Your task to perform on an android device: open the mobile data screen to see how much data has been used Image 0: 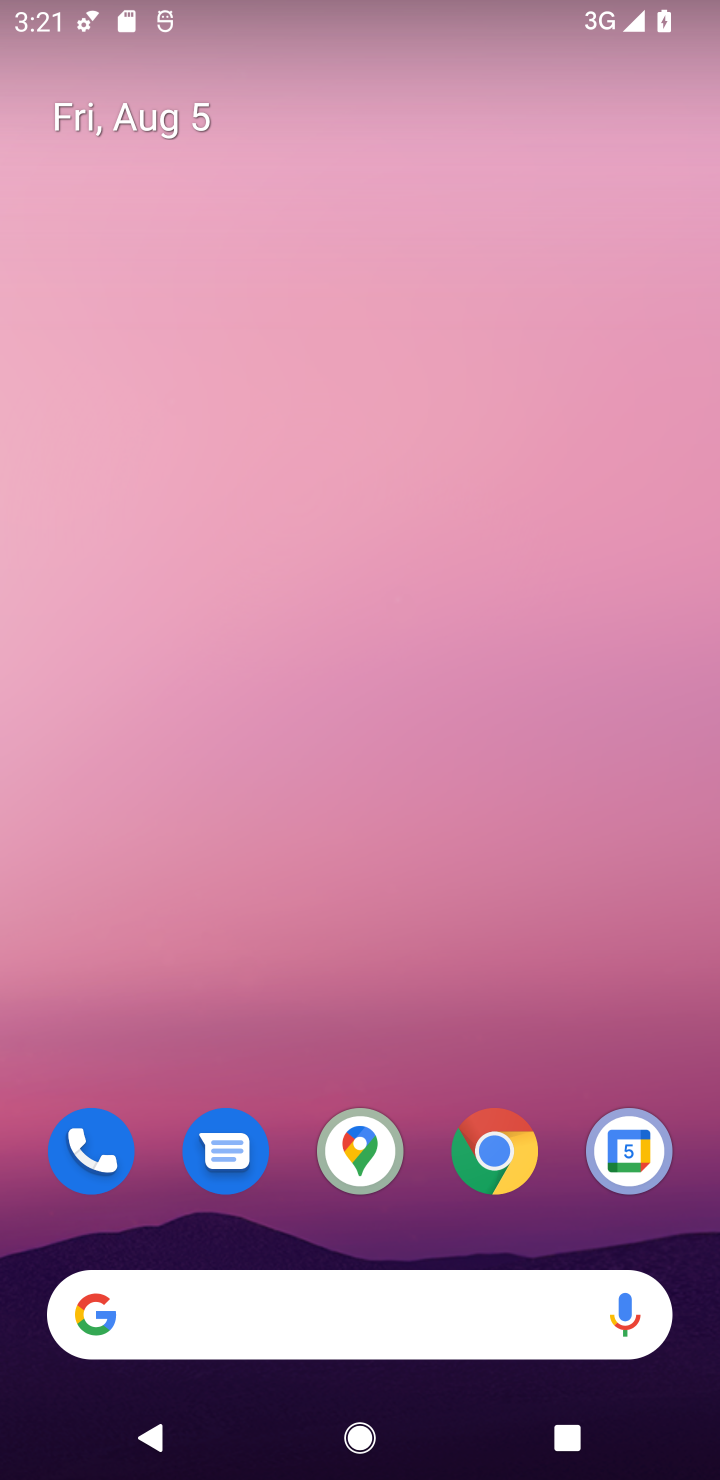
Step 0: press home button
Your task to perform on an android device: open the mobile data screen to see how much data has been used Image 1: 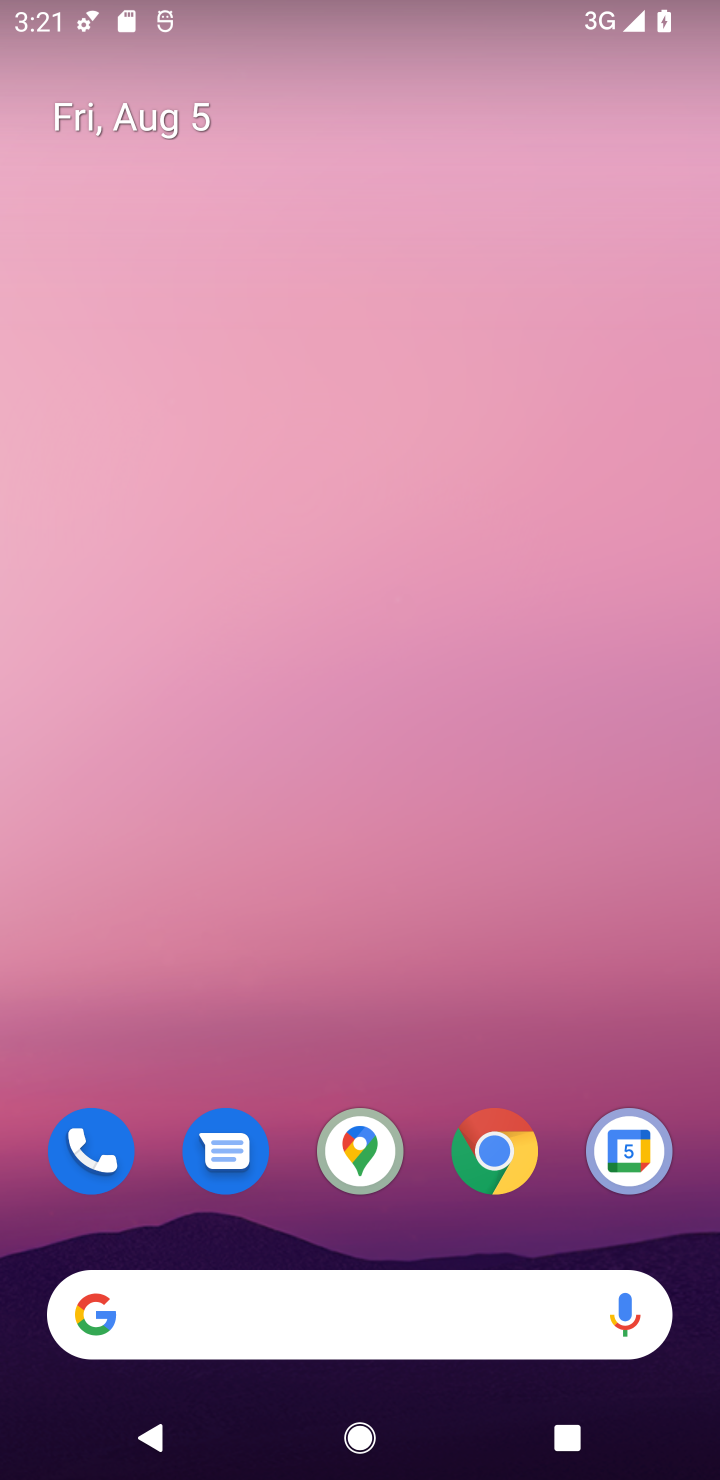
Step 1: drag from (559, 17) to (556, 1469)
Your task to perform on an android device: open the mobile data screen to see how much data has been used Image 2: 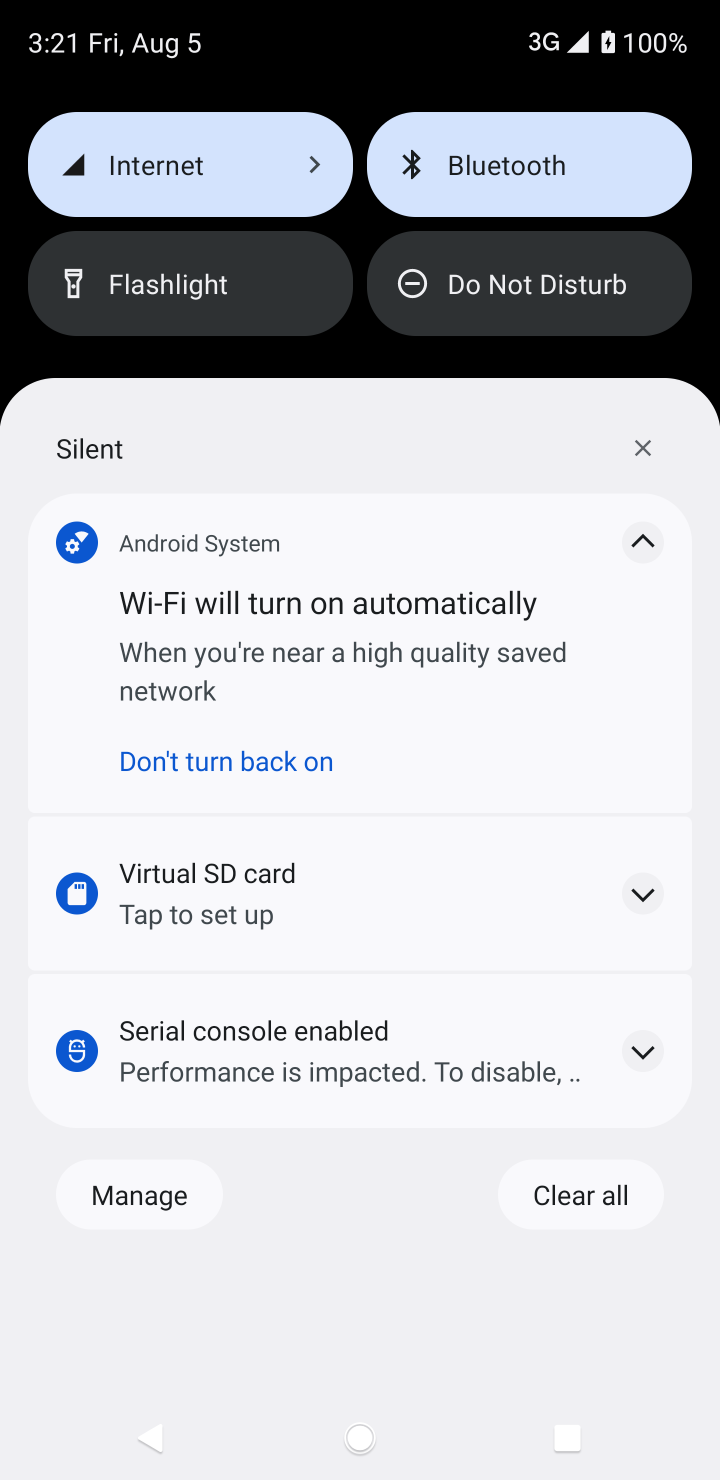
Step 2: drag from (474, 372) to (590, 1459)
Your task to perform on an android device: open the mobile data screen to see how much data has been used Image 3: 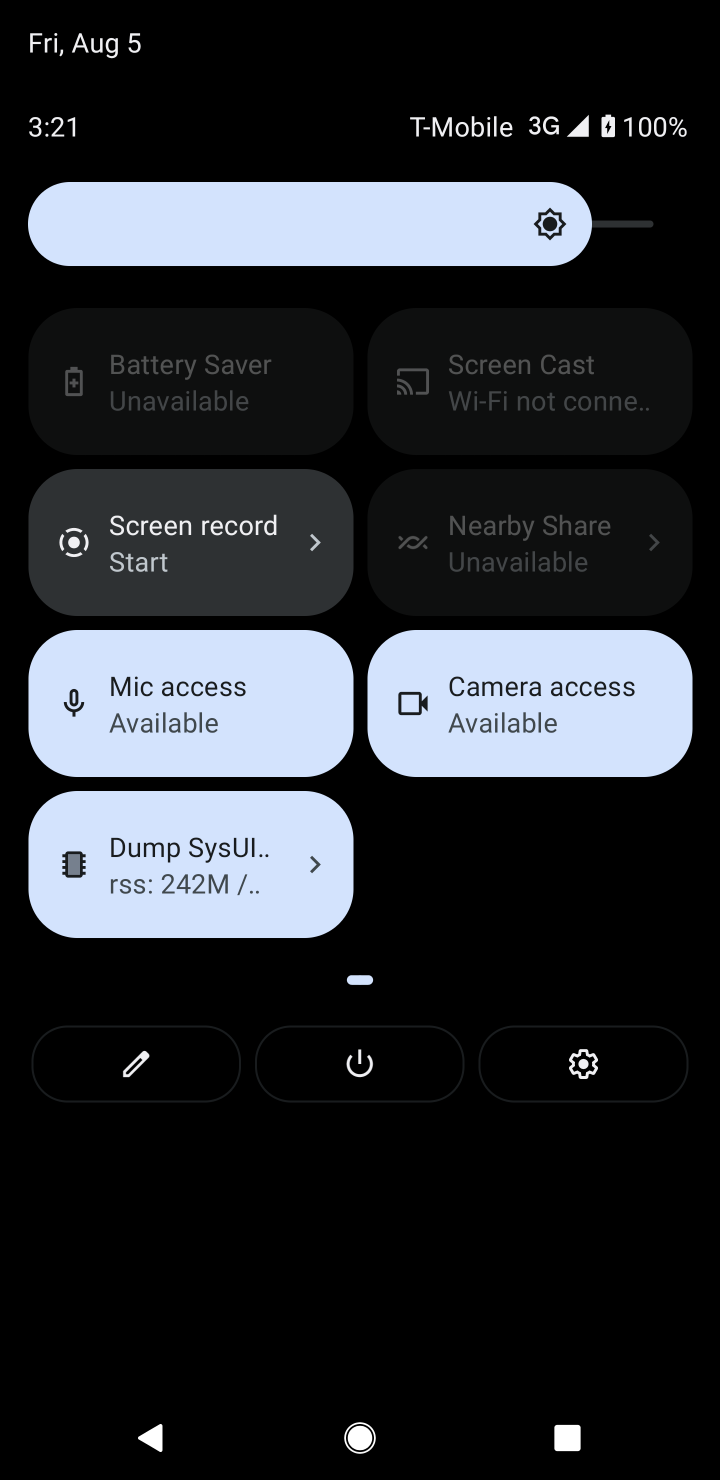
Step 3: click (593, 1069)
Your task to perform on an android device: open the mobile data screen to see how much data has been used Image 4: 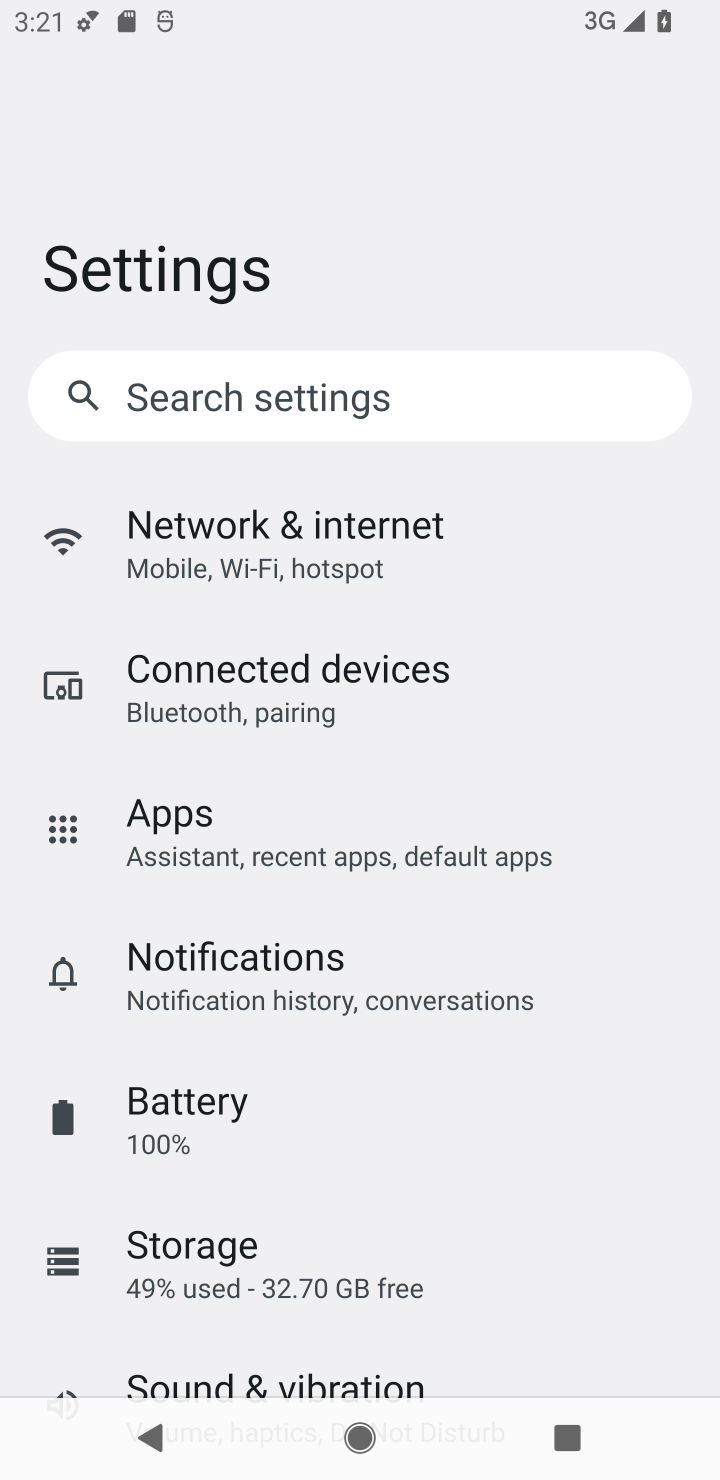
Step 4: click (312, 562)
Your task to perform on an android device: open the mobile data screen to see how much data has been used Image 5: 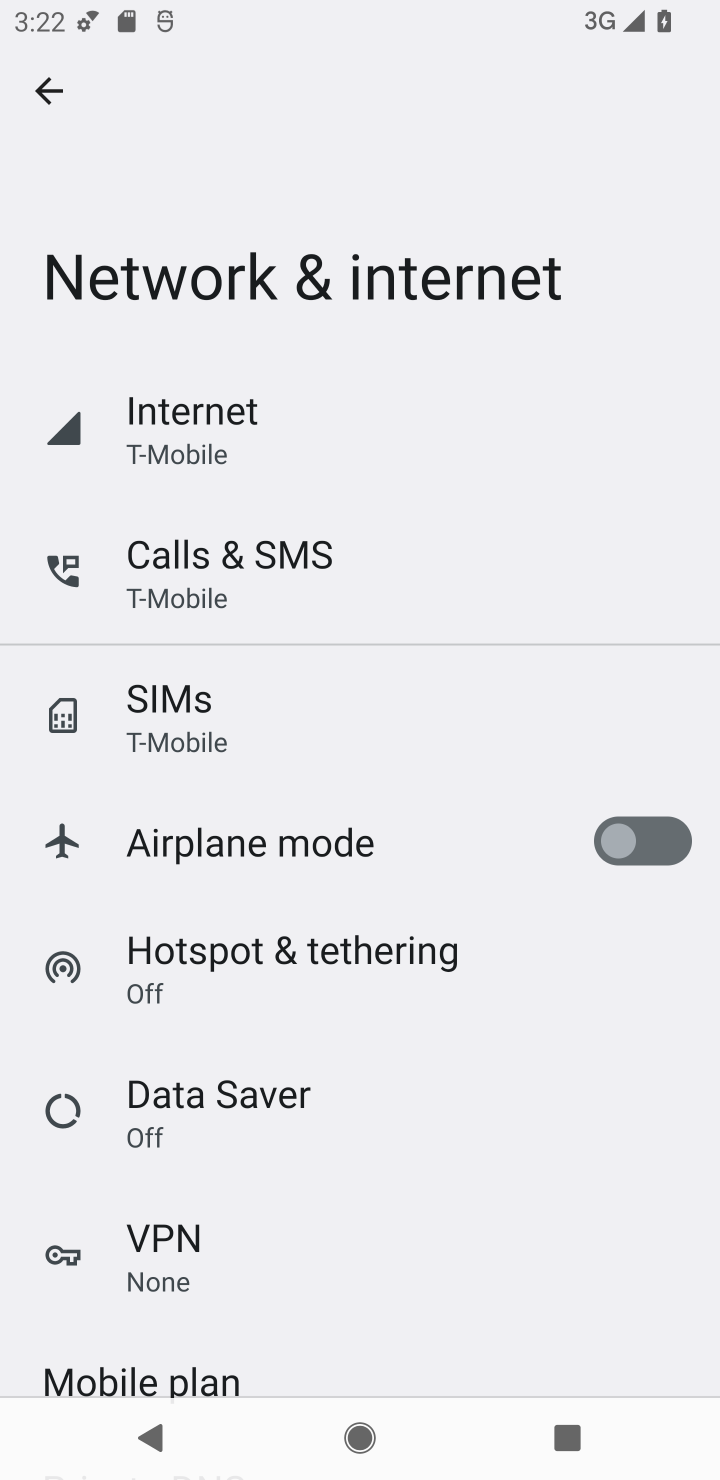
Step 5: click (292, 442)
Your task to perform on an android device: open the mobile data screen to see how much data has been used Image 6: 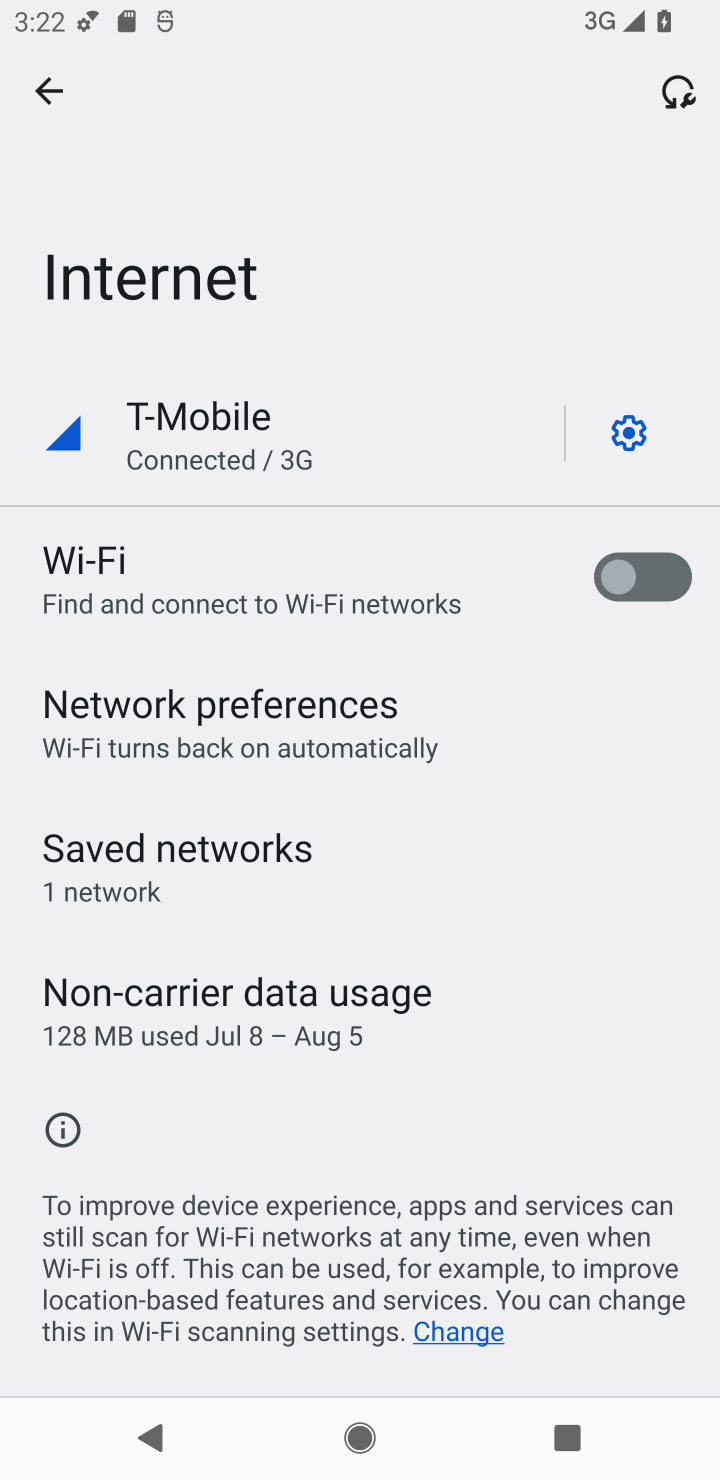
Step 6: click (221, 443)
Your task to perform on an android device: open the mobile data screen to see how much data has been used Image 7: 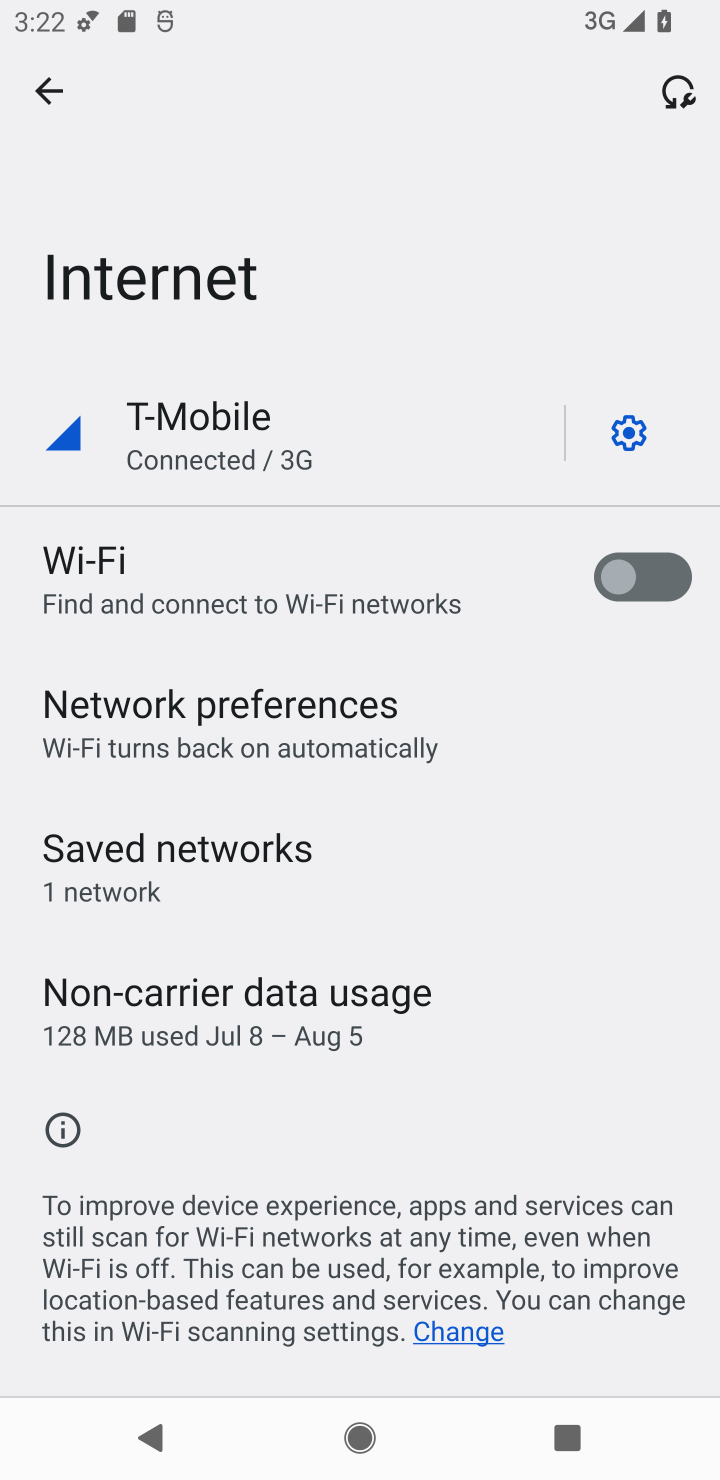
Step 7: click (249, 1027)
Your task to perform on an android device: open the mobile data screen to see how much data has been used Image 8: 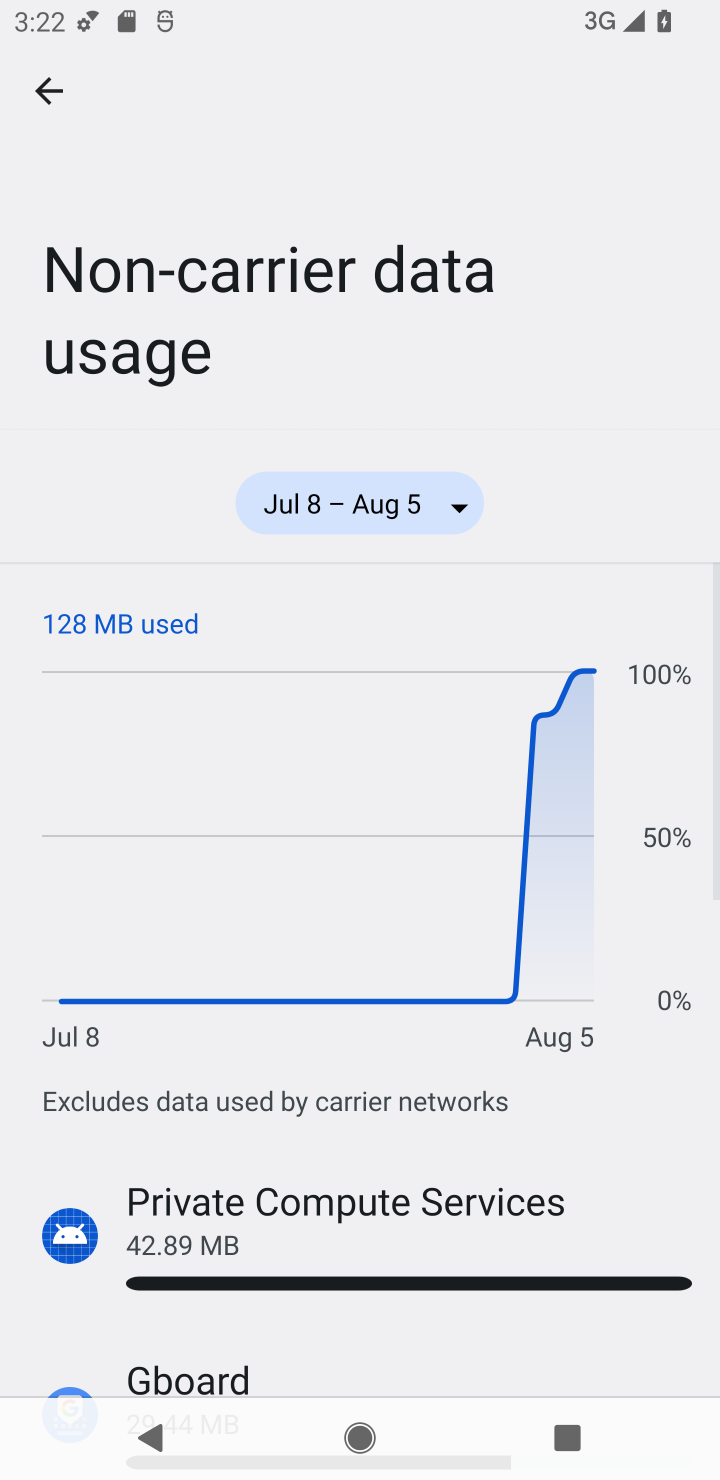
Step 8: task complete